Your task to perform on an android device: Open settings Image 0: 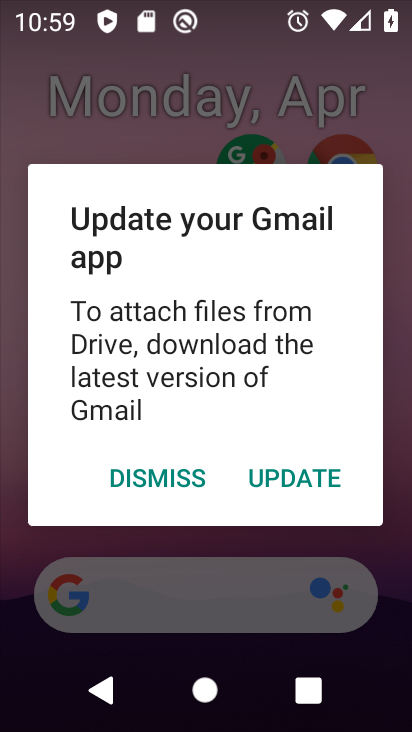
Step 0: press home button
Your task to perform on an android device: Open settings Image 1: 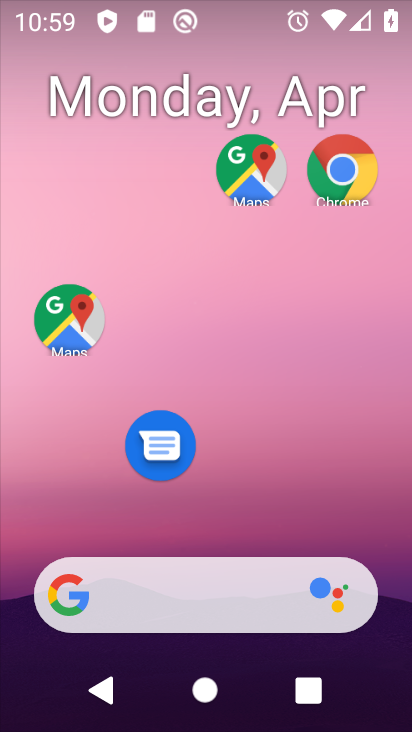
Step 1: drag from (216, 471) to (277, 5)
Your task to perform on an android device: Open settings Image 2: 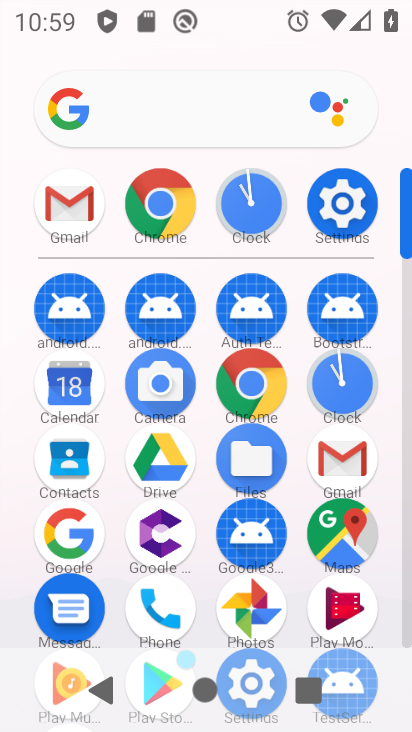
Step 2: click (352, 195)
Your task to perform on an android device: Open settings Image 3: 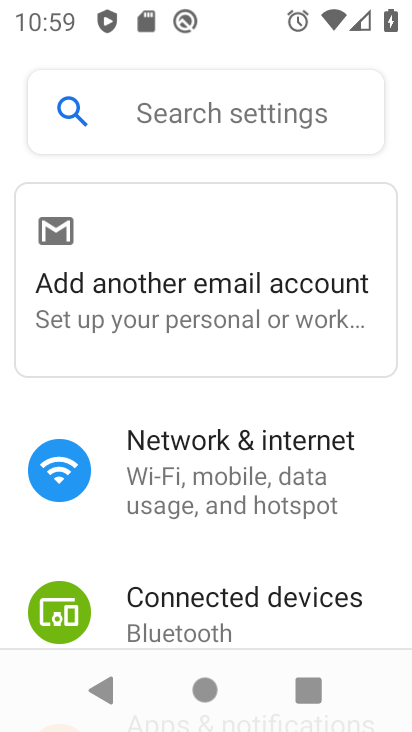
Step 3: task complete